Your task to perform on an android device: Open Reddit.com Image 0: 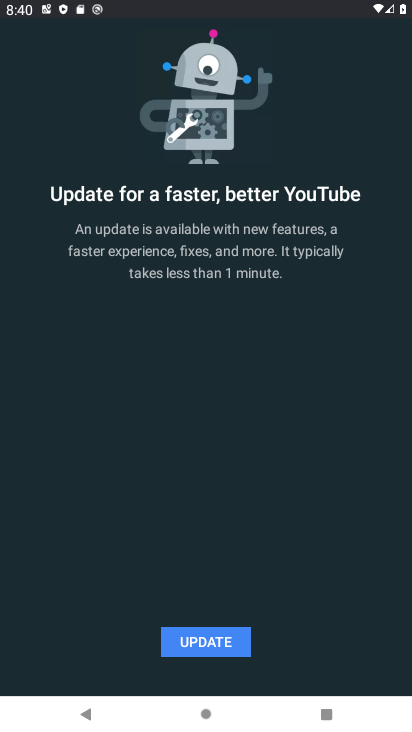
Step 0: press home button
Your task to perform on an android device: Open Reddit.com Image 1: 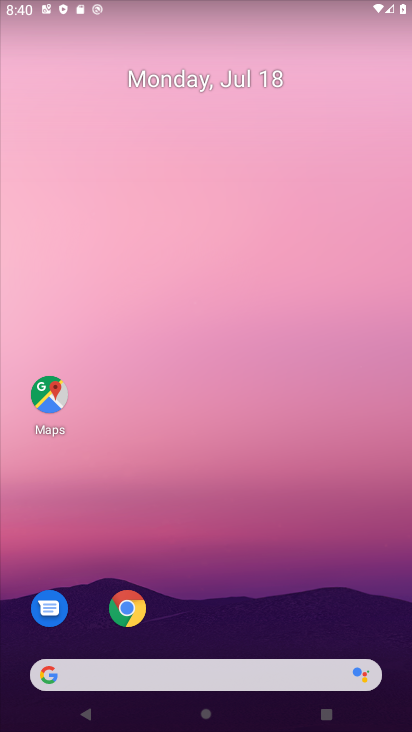
Step 1: click (123, 620)
Your task to perform on an android device: Open Reddit.com Image 2: 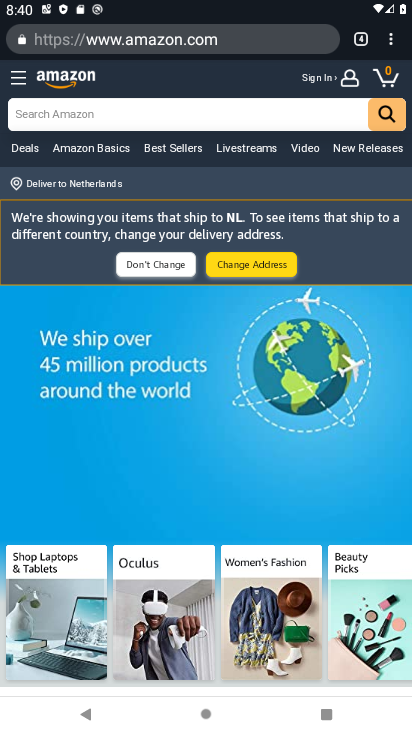
Step 2: click (391, 43)
Your task to perform on an android device: Open Reddit.com Image 3: 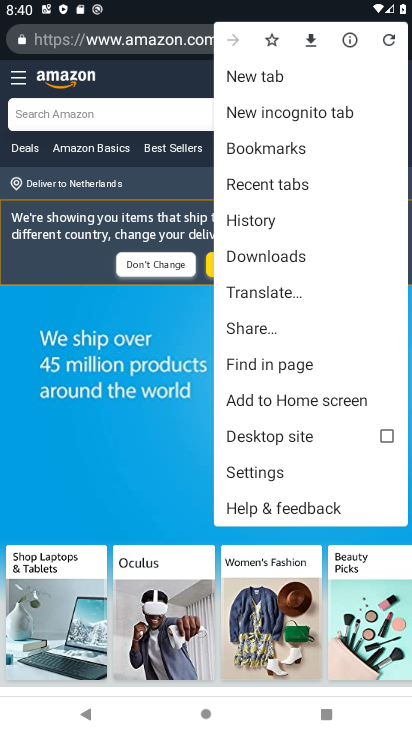
Step 3: click (237, 74)
Your task to perform on an android device: Open Reddit.com Image 4: 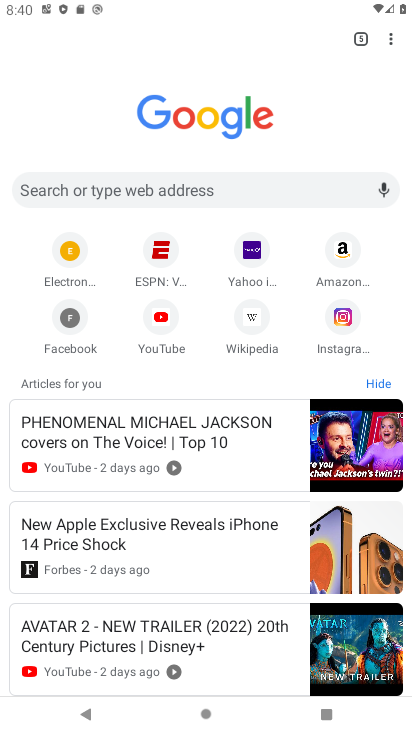
Step 4: click (200, 189)
Your task to perform on an android device: Open Reddit.com Image 5: 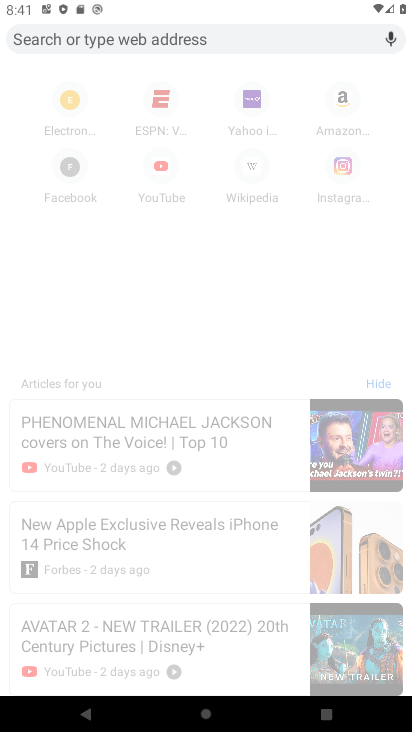
Step 5: type "Reddit.com"
Your task to perform on an android device: Open Reddit.com Image 6: 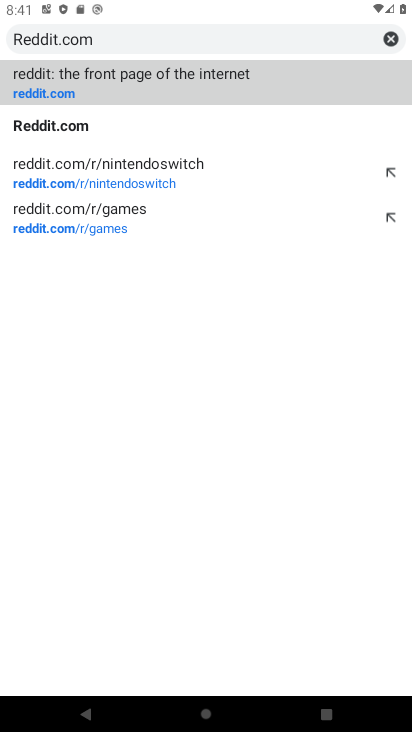
Step 6: click (90, 92)
Your task to perform on an android device: Open Reddit.com Image 7: 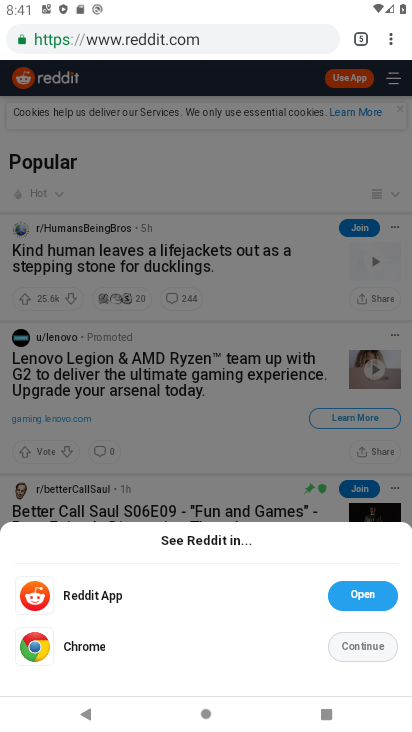
Step 7: task complete